Your task to perform on an android device: Is it going to rain tomorrow? Image 0: 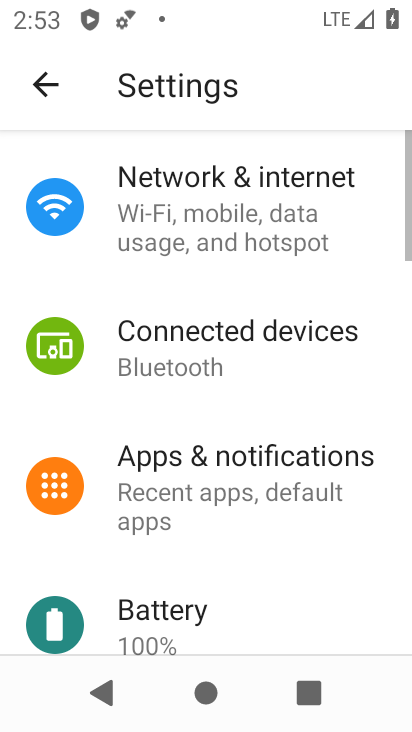
Step 0: press home button
Your task to perform on an android device: Is it going to rain tomorrow? Image 1: 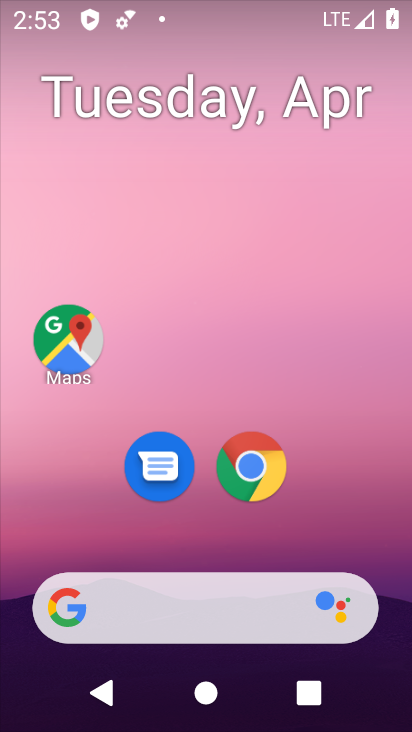
Step 1: click (198, 599)
Your task to perform on an android device: Is it going to rain tomorrow? Image 2: 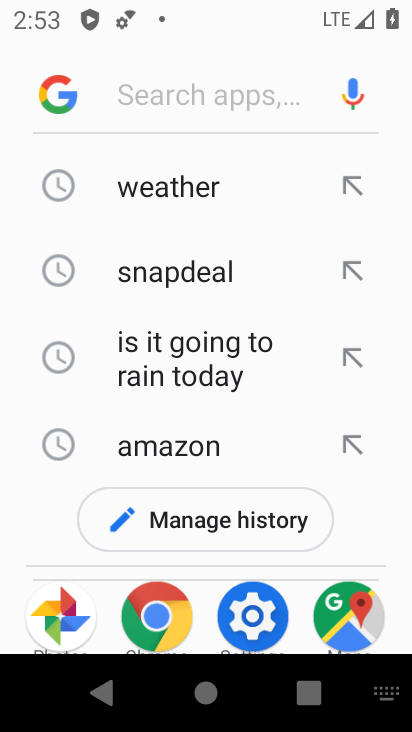
Step 2: click (149, 185)
Your task to perform on an android device: Is it going to rain tomorrow? Image 3: 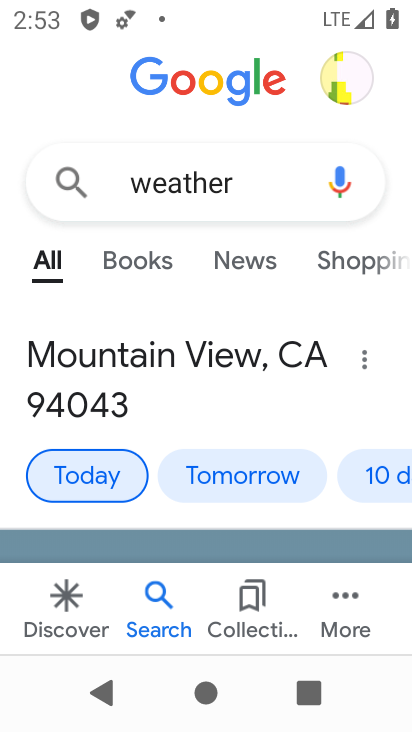
Step 3: click (217, 470)
Your task to perform on an android device: Is it going to rain tomorrow? Image 4: 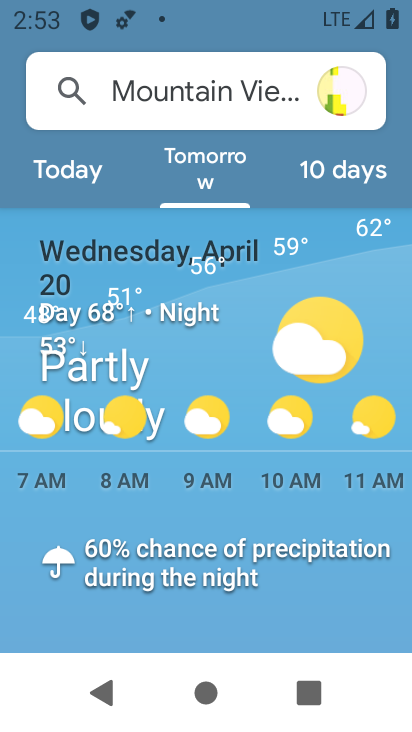
Step 4: task complete